Your task to perform on an android device: set the timer Image 0: 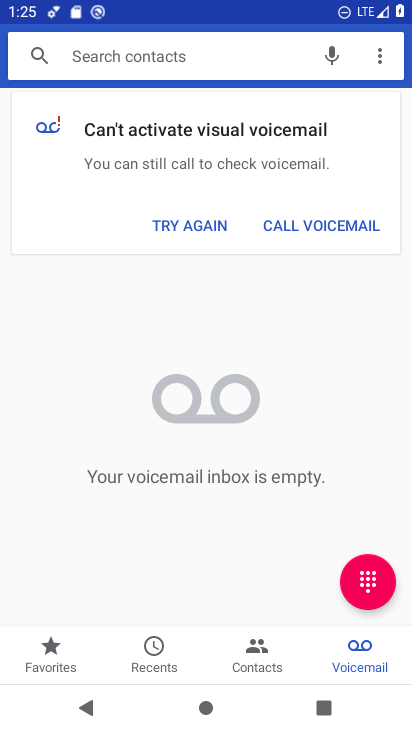
Step 0: press home button
Your task to perform on an android device: set the timer Image 1: 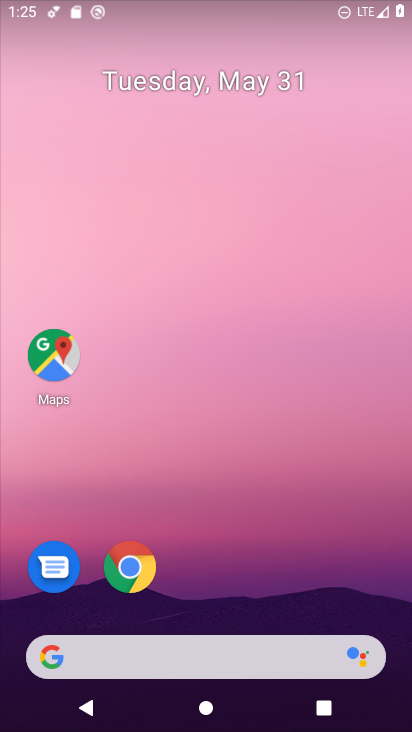
Step 1: drag from (238, 240) to (238, 114)
Your task to perform on an android device: set the timer Image 2: 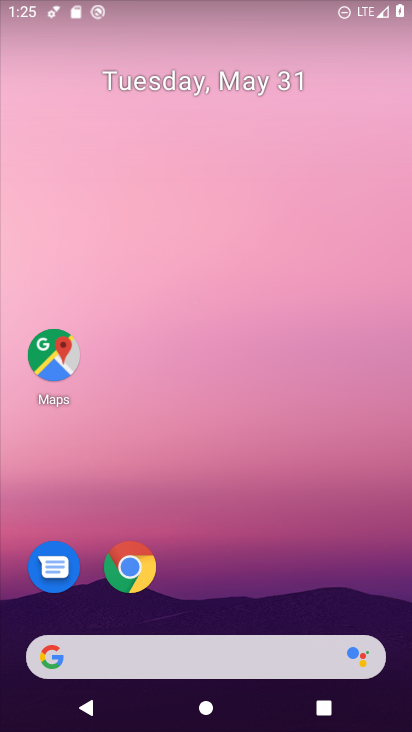
Step 2: drag from (198, 606) to (259, 172)
Your task to perform on an android device: set the timer Image 3: 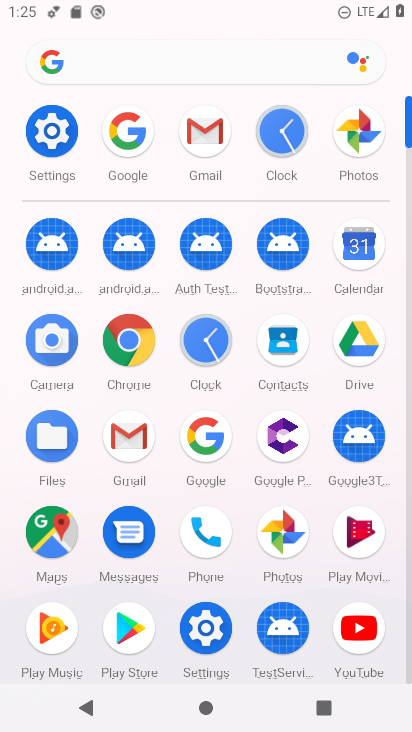
Step 3: click (264, 151)
Your task to perform on an android device: set the timer Image 4: 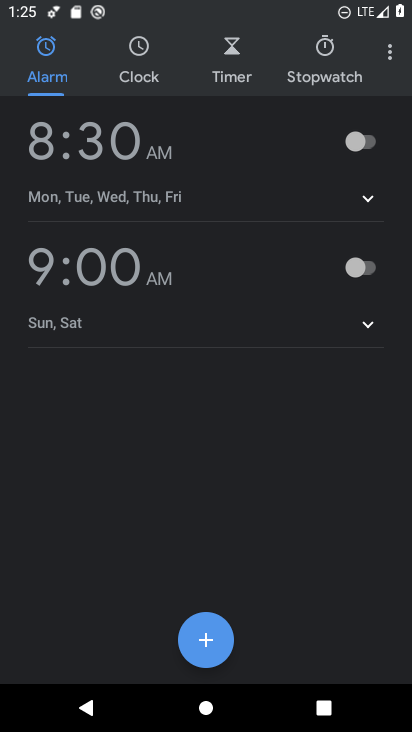
Step 4: click (234, 57)
Your task to perform on an android device: set the timer Image 5: 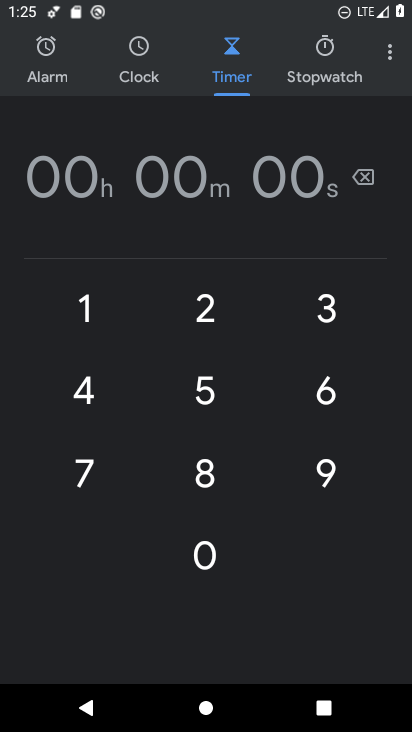
Step 5: click (272, 175)
Your task to perform on an android device: set the timer Image 6: 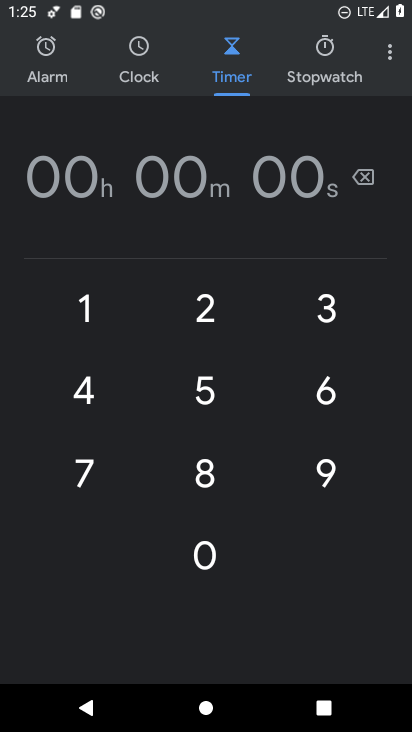
Step 6: type "11"
Your task to perform on an android device: set the timer Image 7: 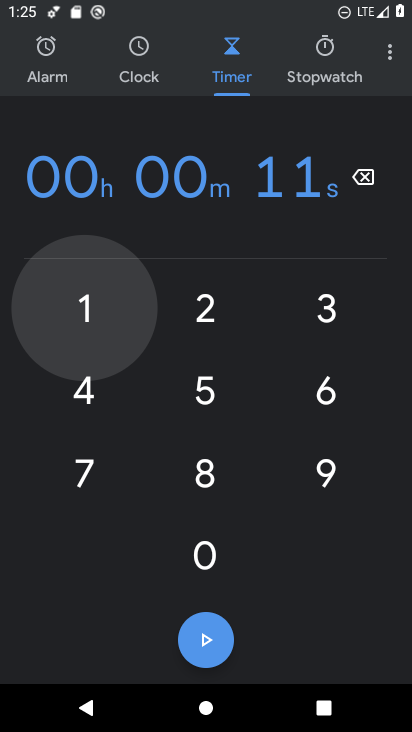
Step 7: click (215, 636)
Your task to perform on an android device: set the timer Image 8: 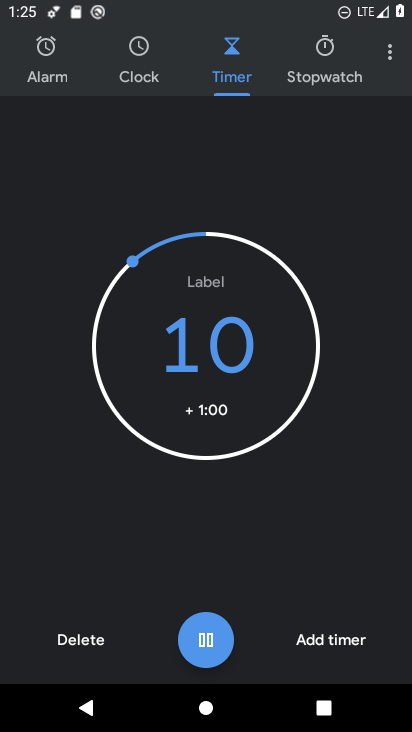
Step 8: task complete